Your task to perform on an android device: change timer sound Image 0: 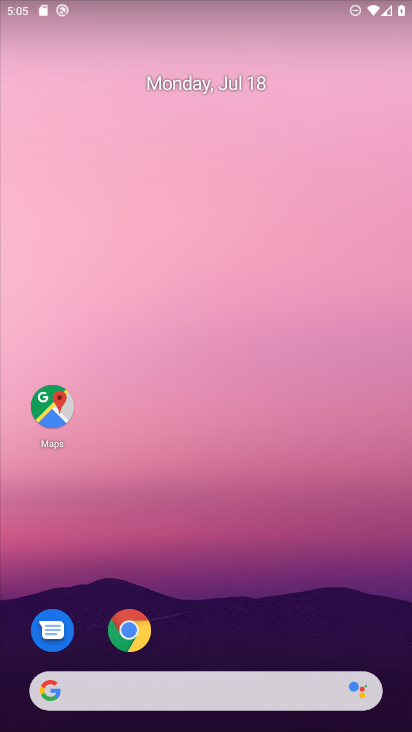
Step 0: press home button
Your task to perform on an android device: change timer sound Image 1: 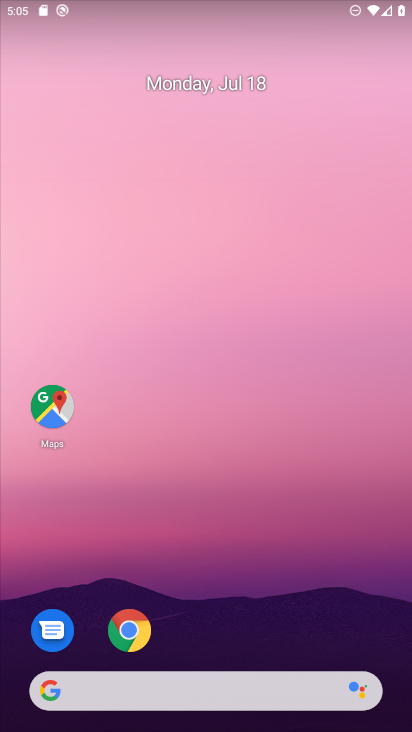
Step 1: click (301, 207)
Your task to perform on an android device: change timer sound Image 2: 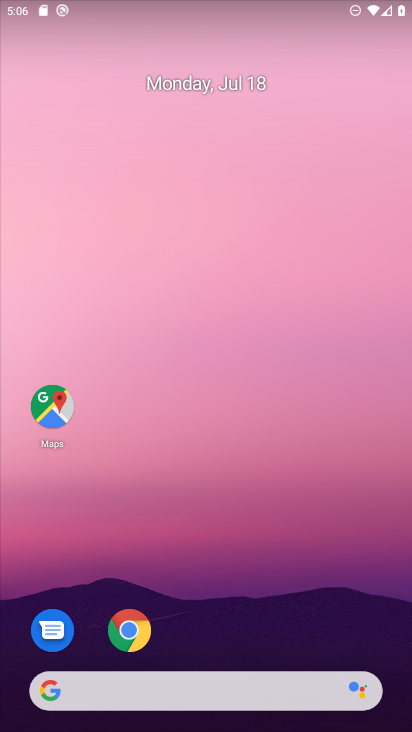
Step 2: drag from (206, 643) to (246, 75)
Your task to perform on an android device: change timer sound Image 3: 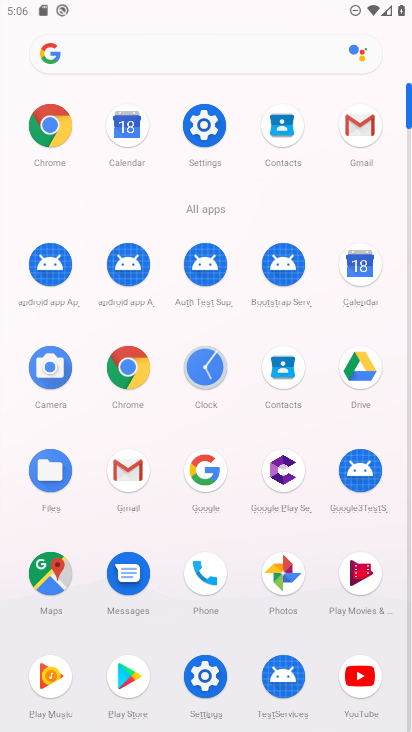
Step 3: click (204, 366)
Your task to perform on an android device: change timer sound Image 4: 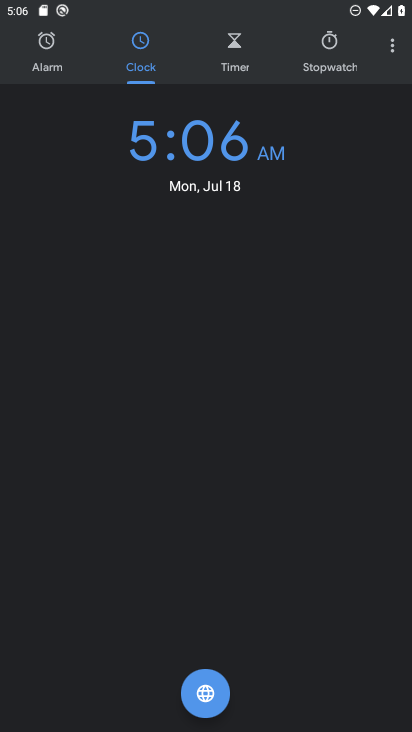
Step 4: click (391, 45)
Your task to perform on an android device: change timer sound Image 5: 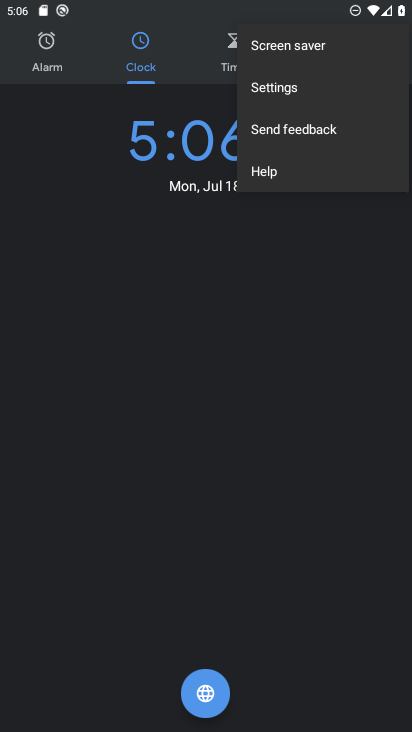
Step 5: click (310, 83)
Your task to perform on an android device: change timer sound Image 6: 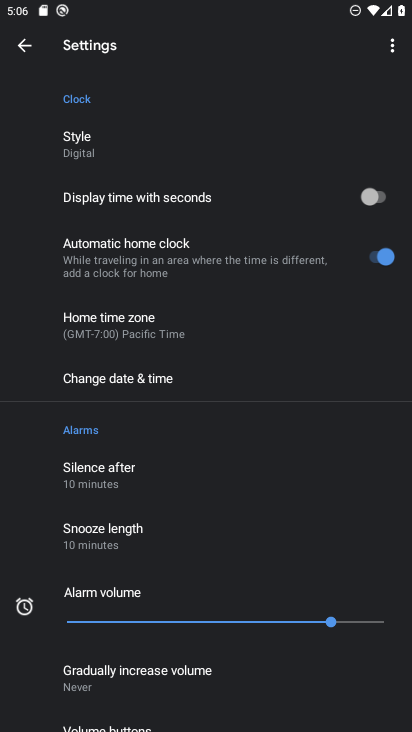
Step 6: drag from (139, 670) to (238, 331)
Your task to perform on an android device: change timer sound Image 7: 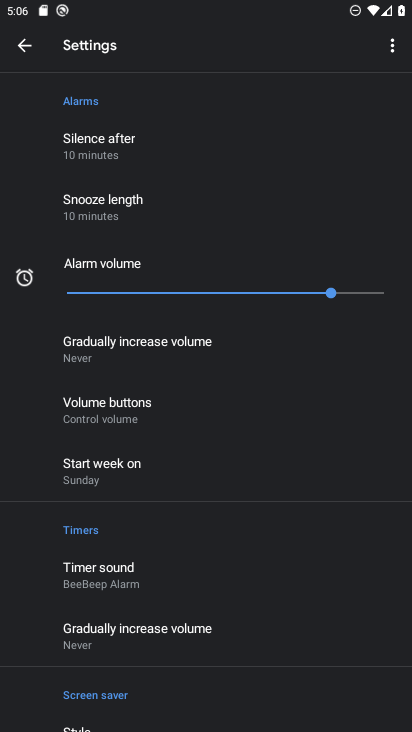
Step 7: click (134, 571)
Your task to perform on an android device: change timer sound Image 8: 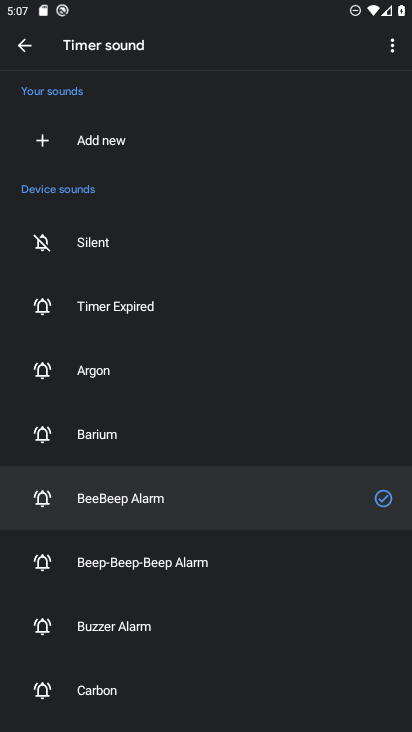
Step 8: click (149, 628)
Your task to perform on an android device: change timer sound Image 9: 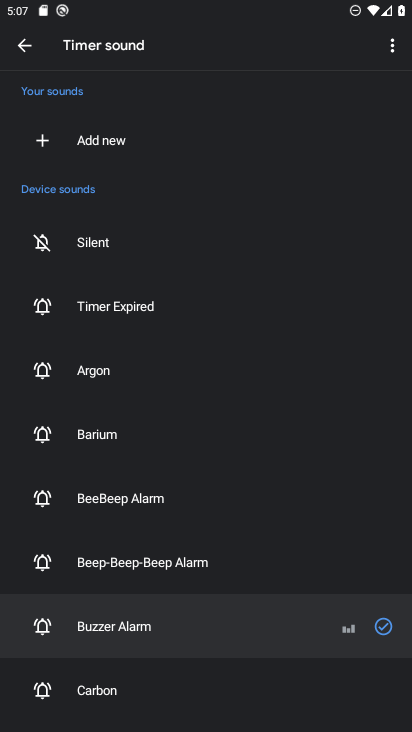
Step 9: task complete